Your task to perform on an android device: Open Google Maps and go to "Timeline" Image 0: 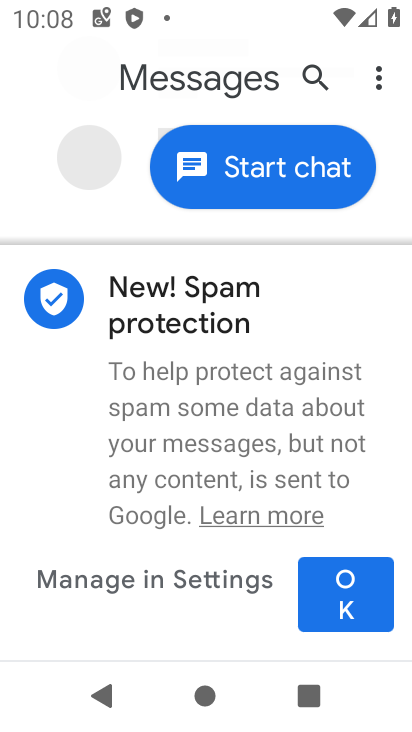
Step 0: press home button
Your task to perform on an android device: Open Google Maps and go to "Timeline" Image 1: 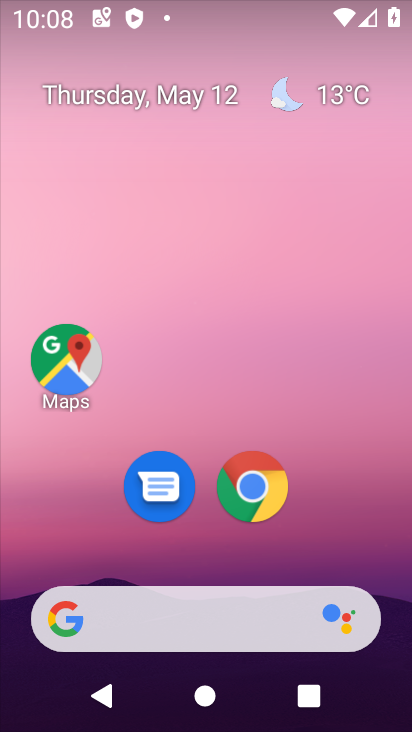
Step 1: drag from (384, 552) to (274, 233)
Your task to perform on an android device: Open Google Maps and go to "Timeline" Image 2: 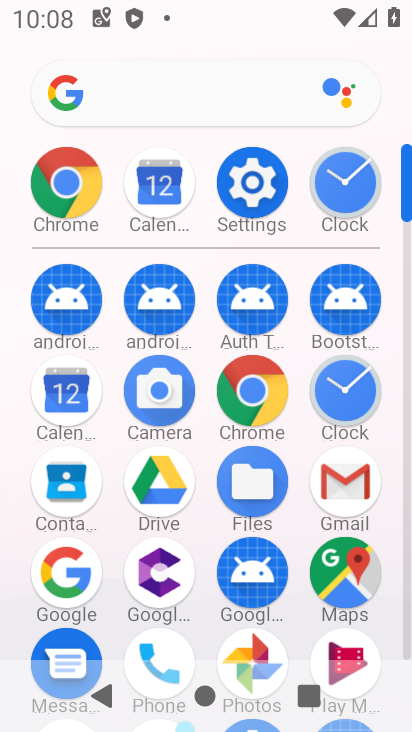
Step 2: click (329, 562)
Your task to perform on an android device: Open Google Maps and go to "Timeline" Image 3: 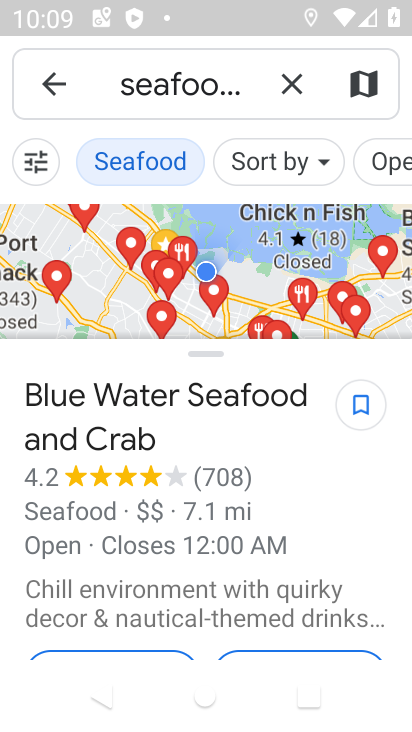
Step 3: click (58, 94)
Your task to perform on an android device: Open Google Maps and go to "Timeline" Image 4: 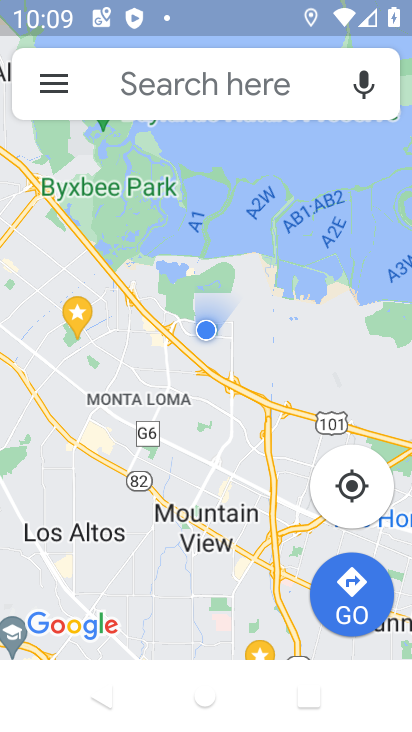
Step 4: click (58, 94)
Your task to perform on an android device: Open Google Maps and go to "Timeline" Image 5: 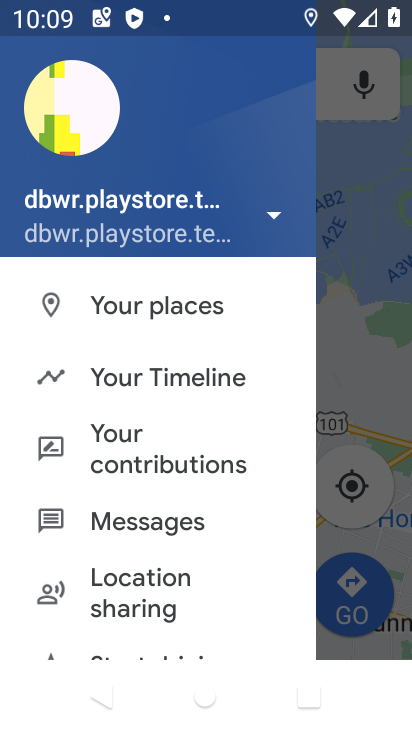
Step 5: click (188, 381)
Your task to perform on an android device: Open Google Maps and go to "Timeline" Image 6: 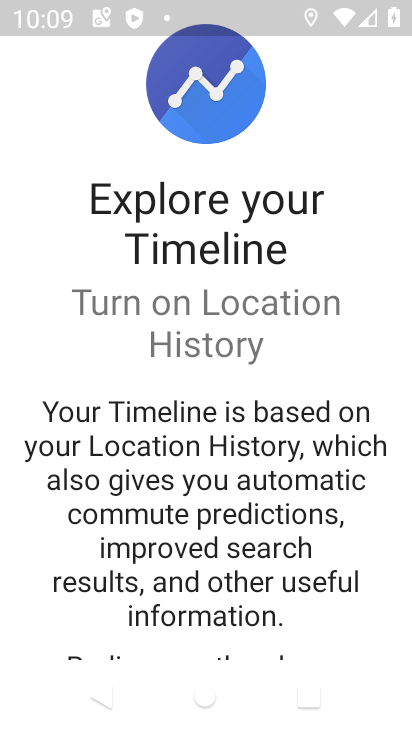
Step 6: drag from (289, 601) to (239, 281)
Your task to perform on an android device: Open Google Maps and go to "Timeline" Image 7: 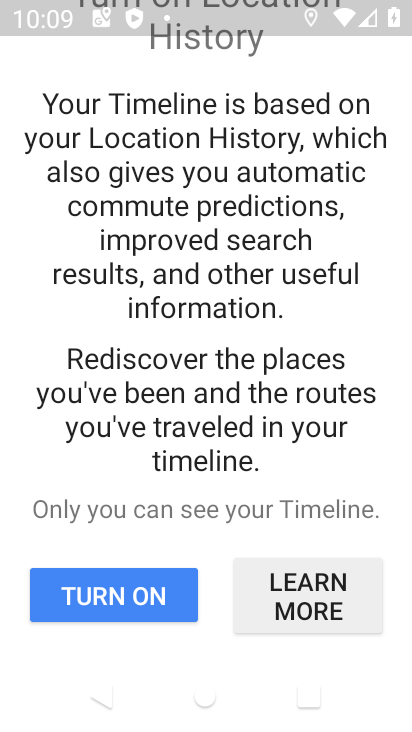
Step 7: click (167, 588)
Your task to perform on an android device: Open Google Maps and go to "Timeline" Image 8: 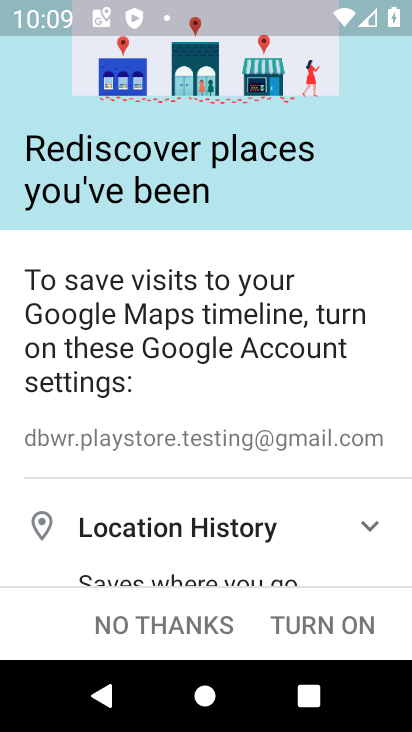
Step 8: task complete